Your task to perform on an android device: star an email in the gmail app Image 0: 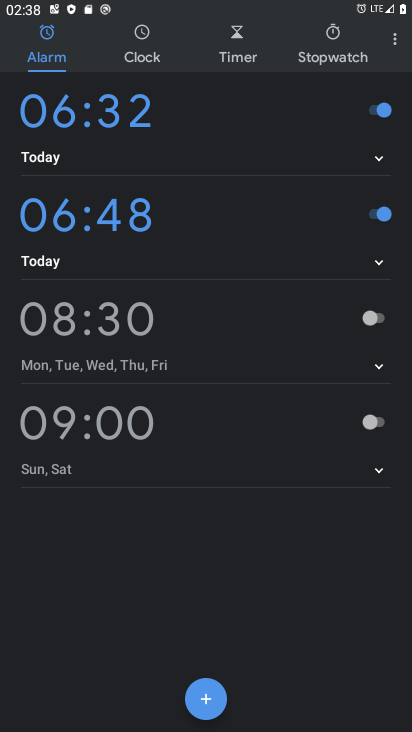
Step 0: press home button
Your task to perform on an android device: star an email in the gmail app Image 1: 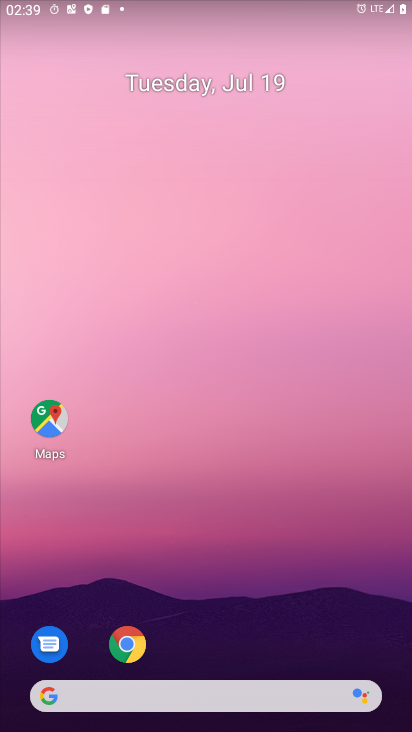
Step 1: drag from (200, 727) to (190, 157)
Your task to perform on an android device: star an email in the gmail app Image 2: 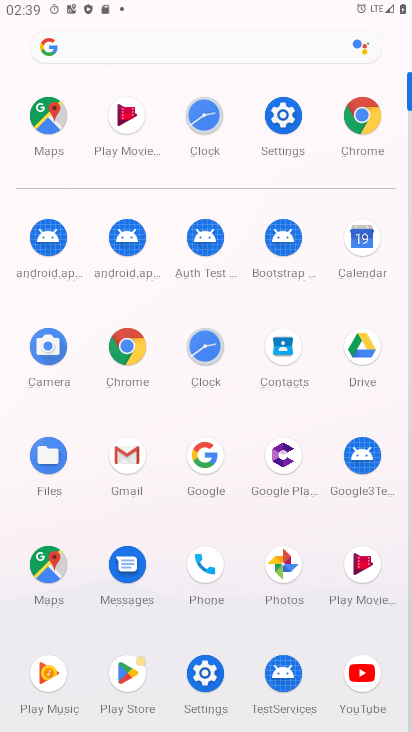
Step 2: click (128, 453)
Your task to perform on an android device: star an email in the gmail app Image 3: 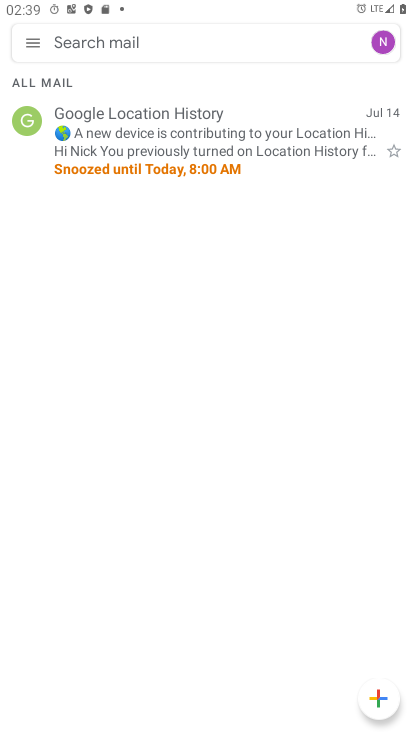
Step 3: click (31, 38)
Your task to perform on an android device: star an email in the gmail app Image 4: 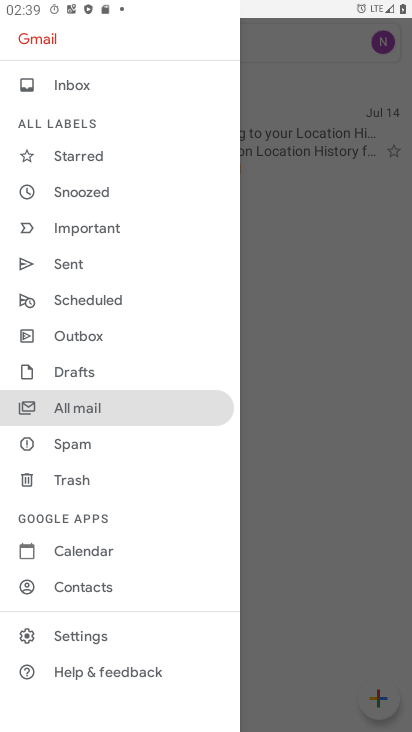
Step 4: click (72, 81)
Your task to perform on an android device: star an email in the gmail app Image 5: 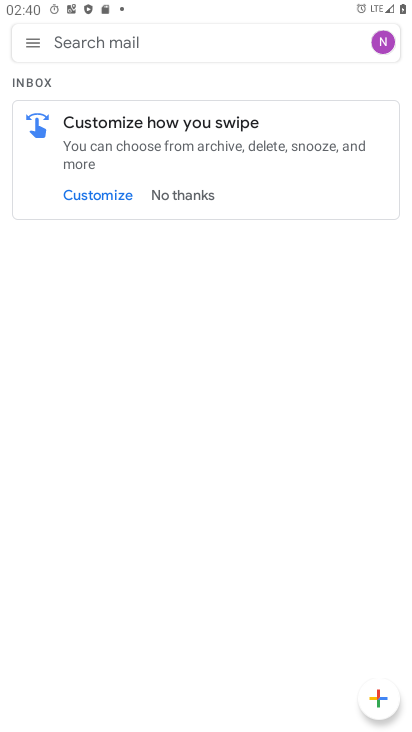
Step 5: task complete